Your task to perform on an android device: find which apps use the phone's location Image 0: 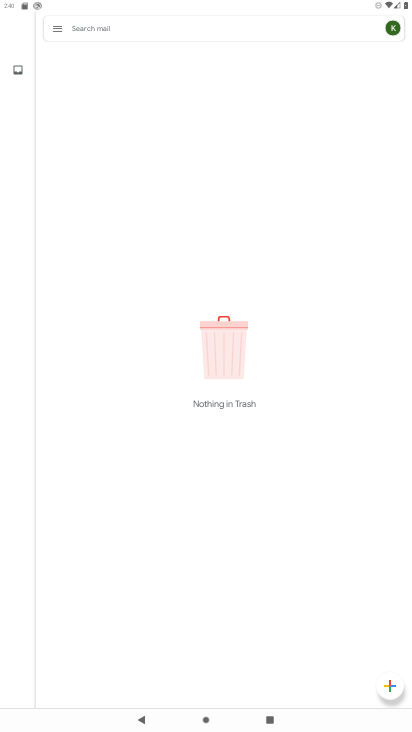
Step 0: press home button
Your task to perform on an android device: find which apps use the phone's location Image 1: 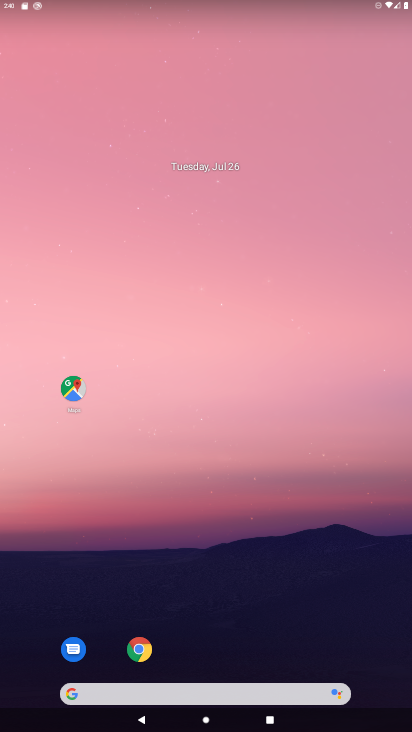
Step 1: drag from (197, 670) to (225, 131)
Your task to perform on an android device: find which apps use the phone's location Image 2: 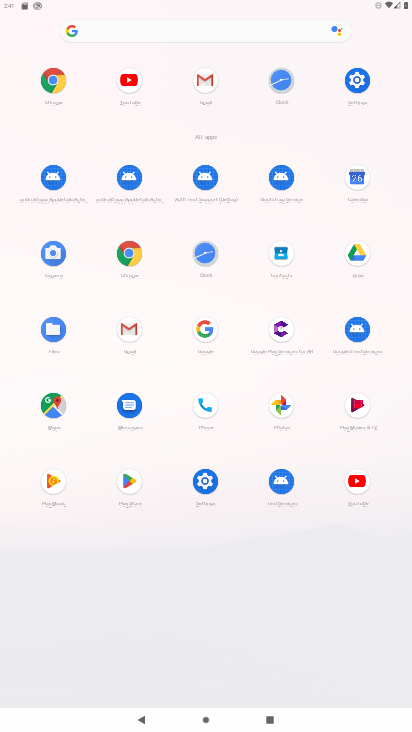
Step 2: click (359, 81)
Your task to perform on an android device: find which apps use the phone's location Image 3: 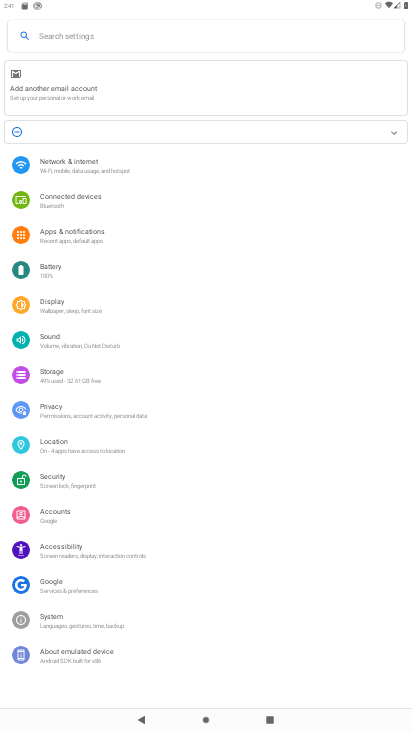
Step 3: click (67, 452)
Your task to perform on an android device: find which apps use the phone's location Image 4: 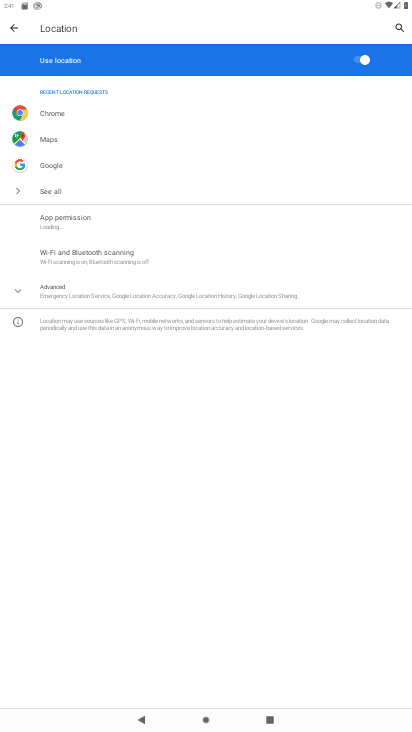
Step 4: click (76, 189)
Your task to perform on an android device: find which apps use the phone's location Image 5: 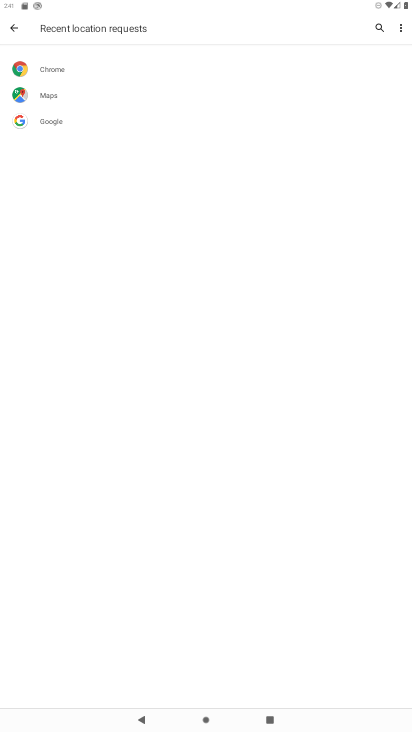
Step 5: task complete